Your task to perform on an android device: turn notification dots off Image 0: 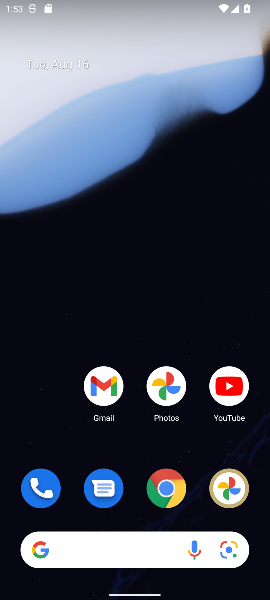
Step 0: drag from (27, 405) to (82, 21)
Your task to perform on an android device: turn notification dots off Image 1: 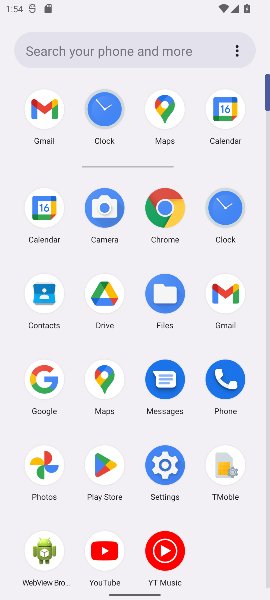
Step 1: click (172, 469)
Your task to perform on an android device: turn notification dots off Image 2: 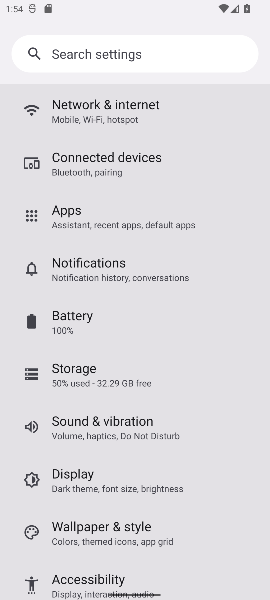
Step 2: task complete